Your task to perform on an android device: see creations saved in the google photos Image 0: 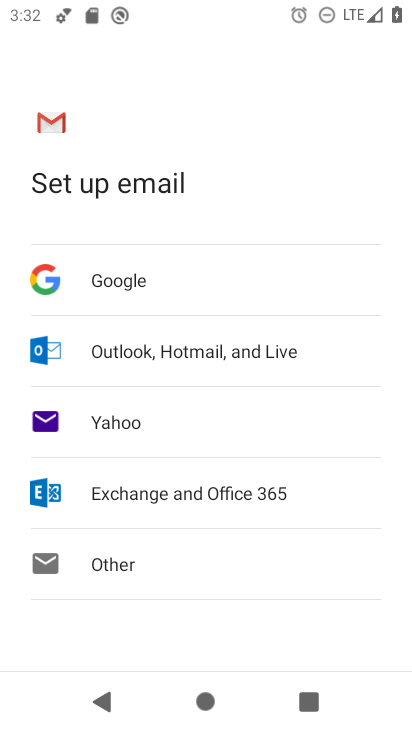
Step 0: press home button
Your task to perform on an android device: see creations saved in the google photos Image 1: 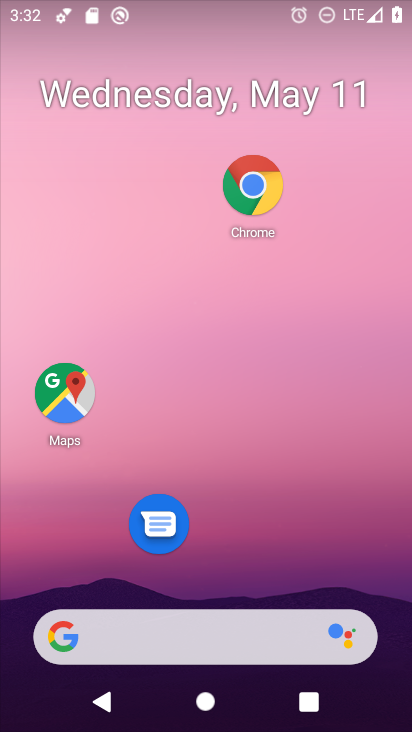
Step 1: drag from (259, 547) to (166, 120)
Your task to perform on an android device: see creations saved in the google photos Image 2: 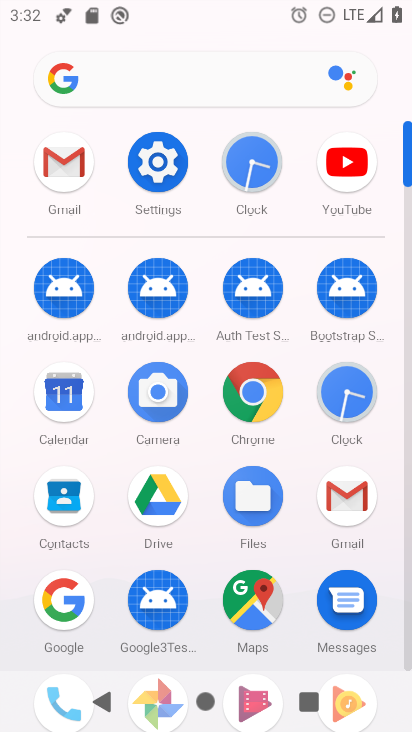
Step 2: drag from (196, 477) to (217, 185)
Your task to perform on an android device: see creations saved in the google photos Image 3: 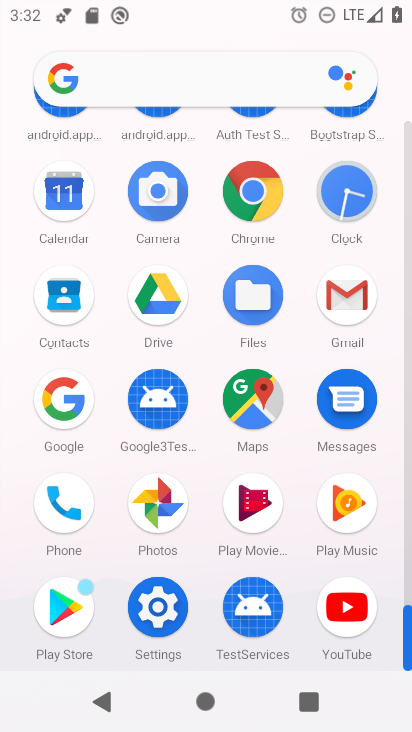
Step 3: click (168, 495)
Your task to perform on an android device: see creations saved in the google photos Image 4: 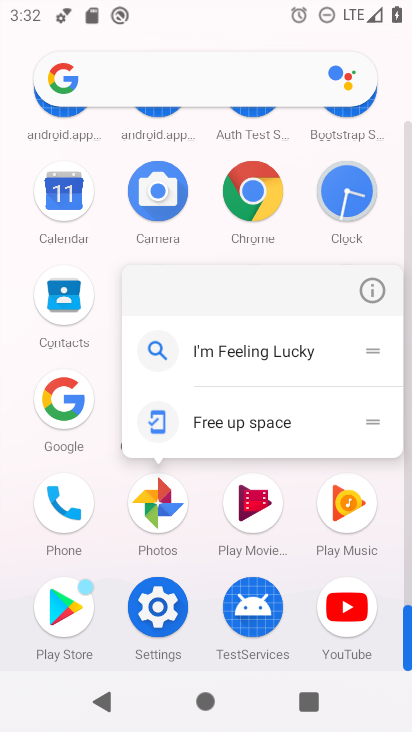
Step 4: click (168, 504)
Your task to perform on an android device: see creations saved in the google photos Image 5: 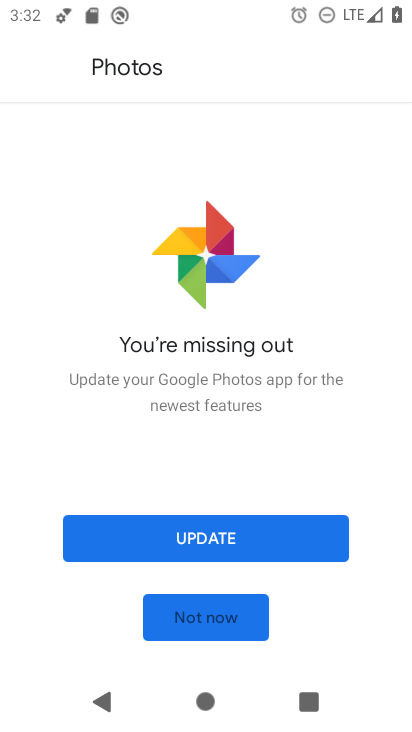
Step 5: click (192, 533)
Your task to perform on an android device: see creations saved in the google photos Image 6: 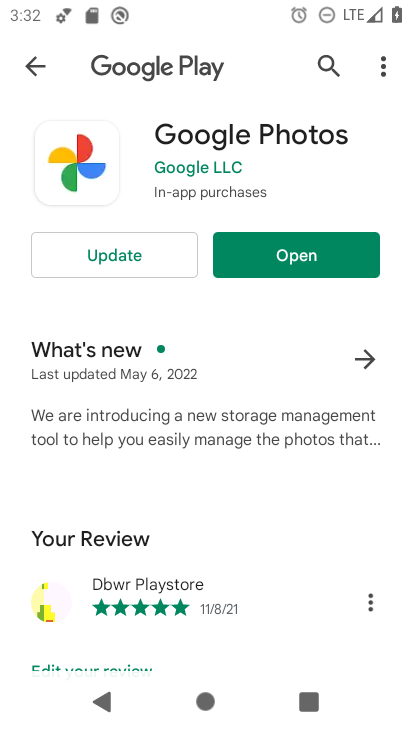
Step 6: click (323, 254)
Your task to perform on an android device: see creations saved in the google photos Image 7: 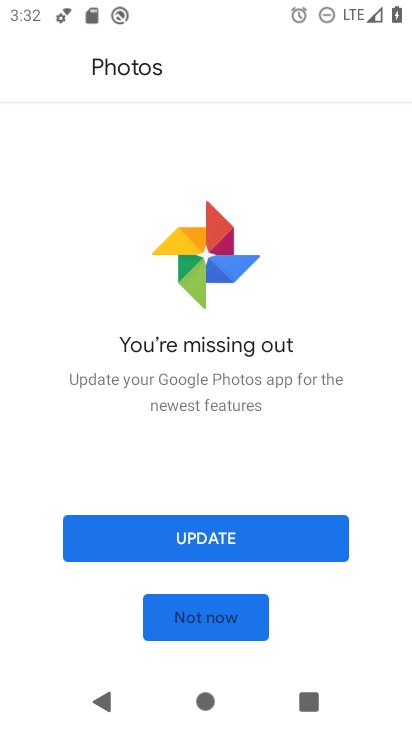
Step 7: click (239, 543)
Your task to perform on an android device: see creations saved in the google photos Image 8: 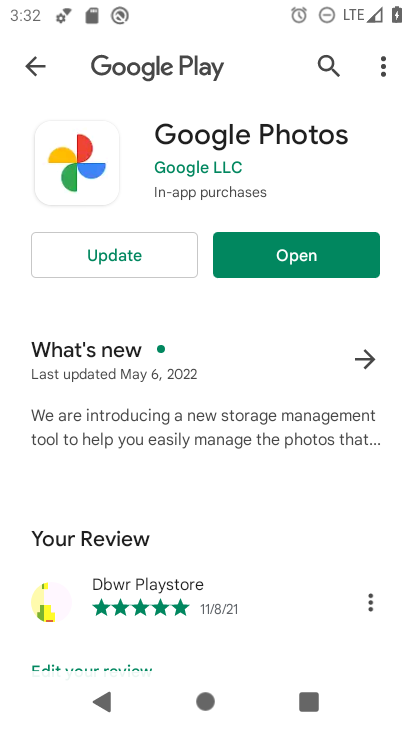
Step 8: click (296, 252)
Your task to perform on an android device: see creations saved in the google photos Image 9: 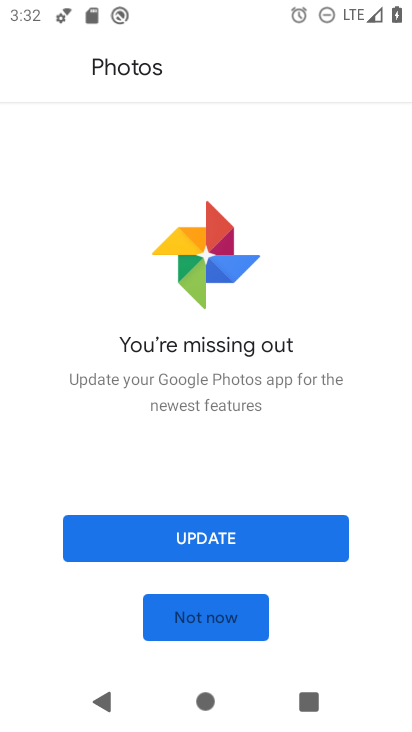
Step 9: click (238, 530)
Your task to perform on an android device: see creations saved in the google photos Image 10: 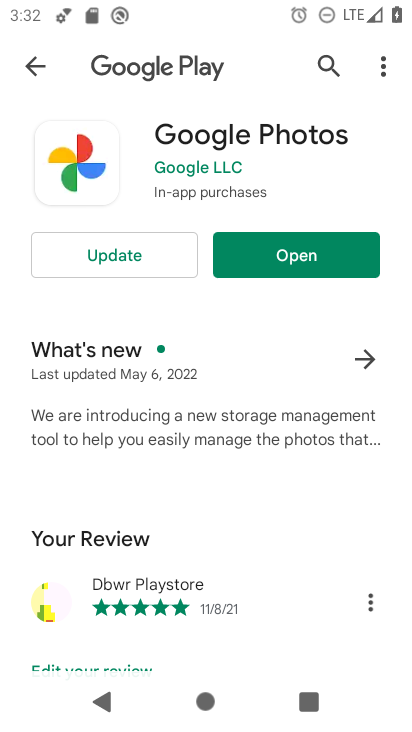
Step 10: click (283, 260)
Your task to perform on an android device: see creations saved in the google photos Image 11: 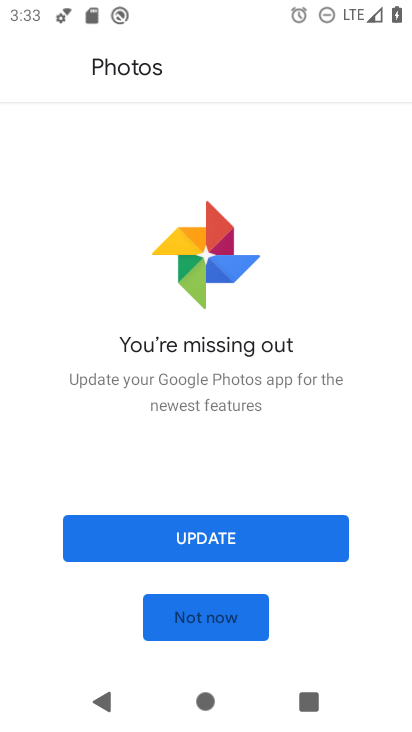
Step 11: click (229, 612)
Your task to perform on an android device: see creations saved in the google photos Image 12: 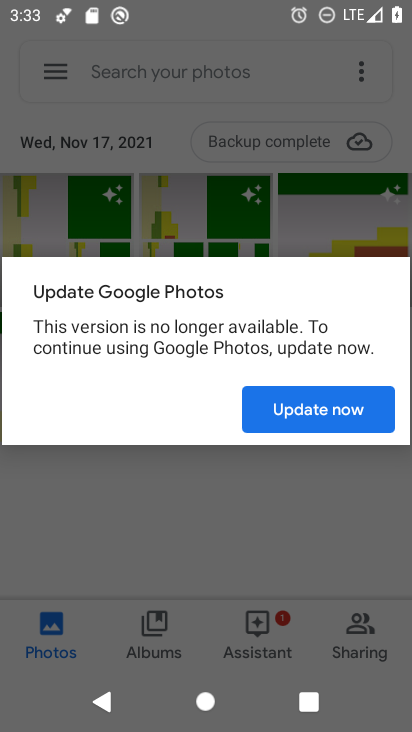
Step 12: click (224, 71)
Your task to perform on an android device: see creations saved in the google photos Image 13: 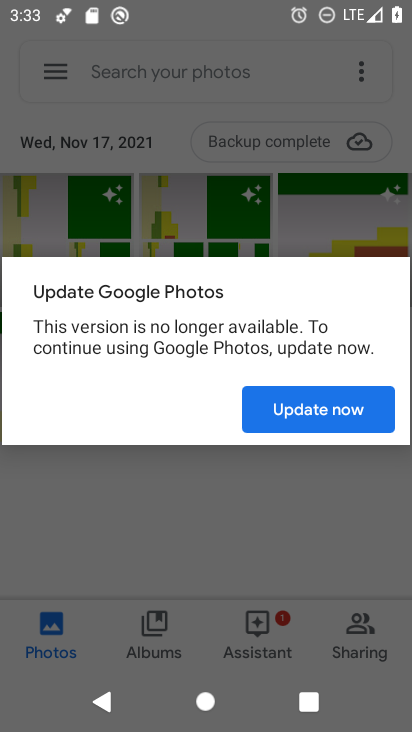
Step 13: click (335, 402)
Your task to perform on an android device: see creations saved in the google photos Image 14: 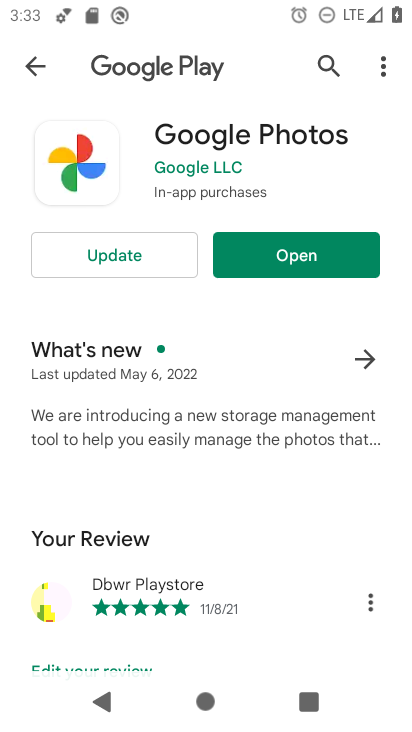
Step 14: click (289, 245)
Your task to perform on an android device: see creations saved in the google photos Image 15: 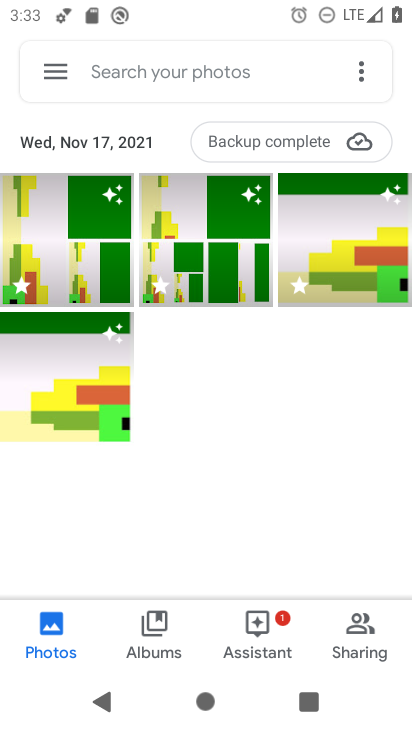
Step 15: click (228, 69)
Your task to perform on an android device: see creations saved in the google photos Image 16: 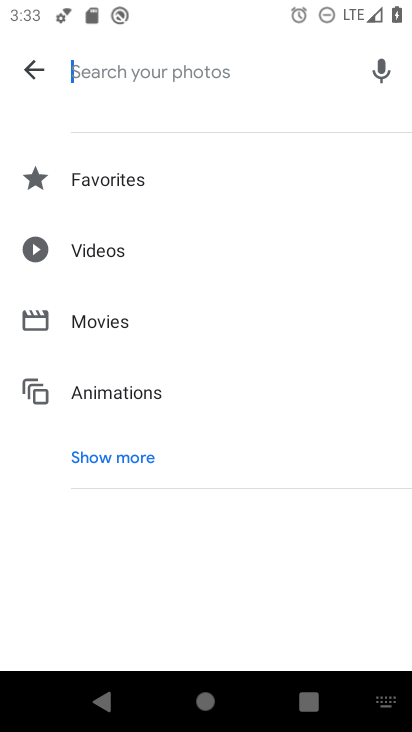
Step 16: click (121, 443)
Your task to perform on an android device: see creations saved in the google photos Image 17: 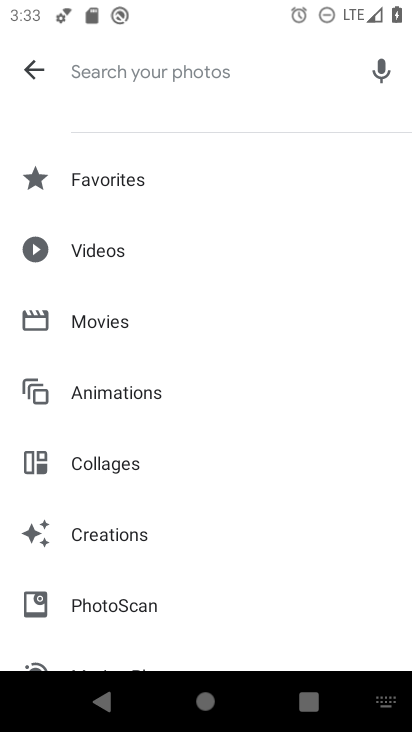
Step 17: click (116, 527)
Your task to perform on an android device: see creations saved in the google photos Image 18: 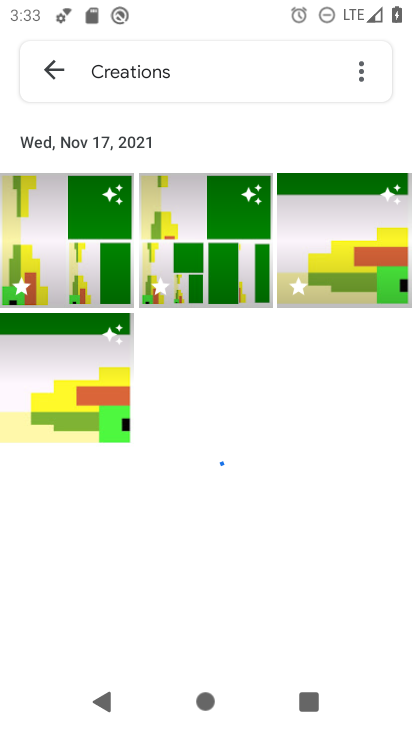
Step 18: task complete